Your task to perform on an android device: turn off improve location accuracy Image 0: 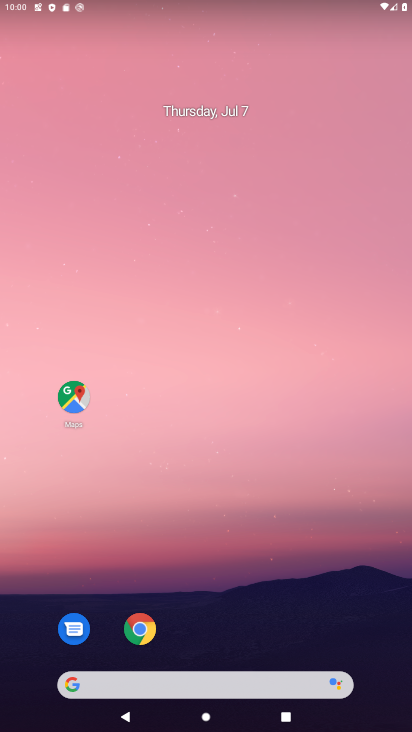
Step 0: drag from (219, 649) to (214, 6)
Your task to perform on an android device: turn off improve location accuracy Image 1: 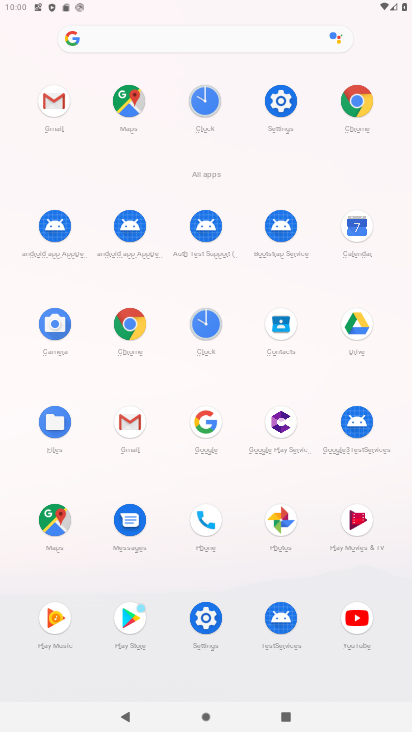
Step 1: click (269, 95)
Your task to perform on an android device: turn off improve location accuracy Image 2: 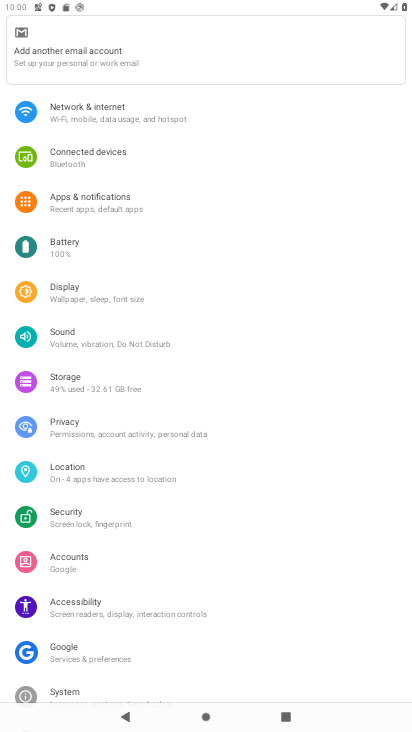
Step 2: click (63, 467)
Your task to perform on an android device: turn off improve location accuracy Image 3: 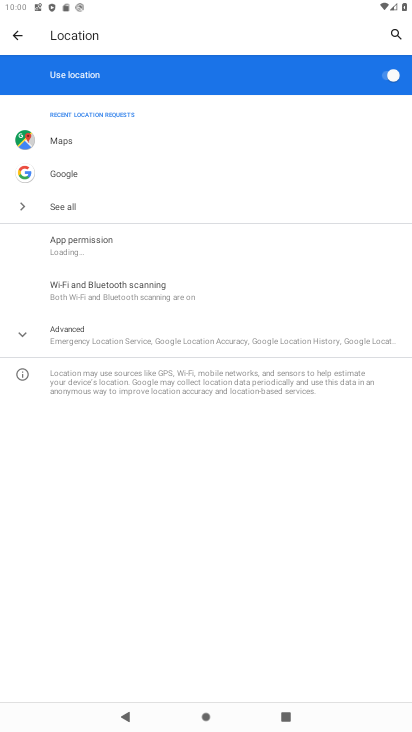
Step 3: click (108, 328)
Your task to perform on an android device: turn off improve location accuracy Image 4: 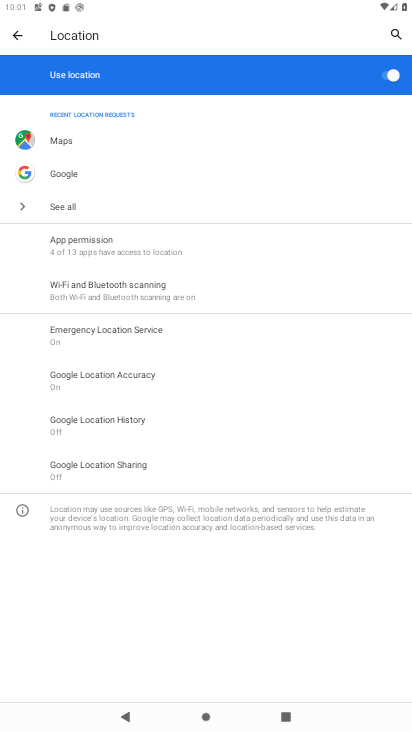
Step 4: click (109, 375)
Your task to perform on an android device: turn off improve location accuracy Image 5: 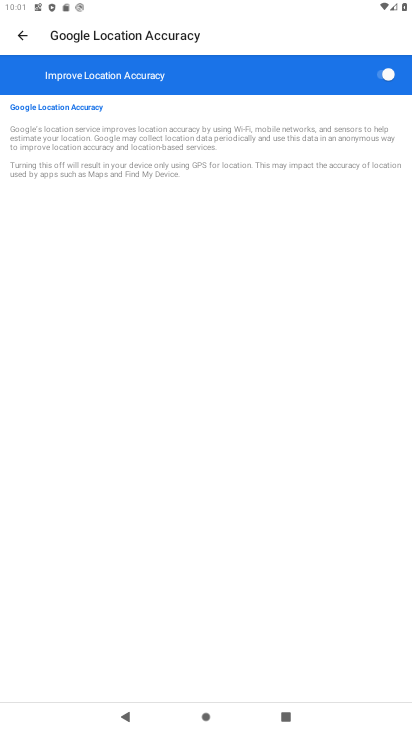
Step 5: click (382, 78)
Your task to perform on an android device: turn off improve location accuracy Image 6: 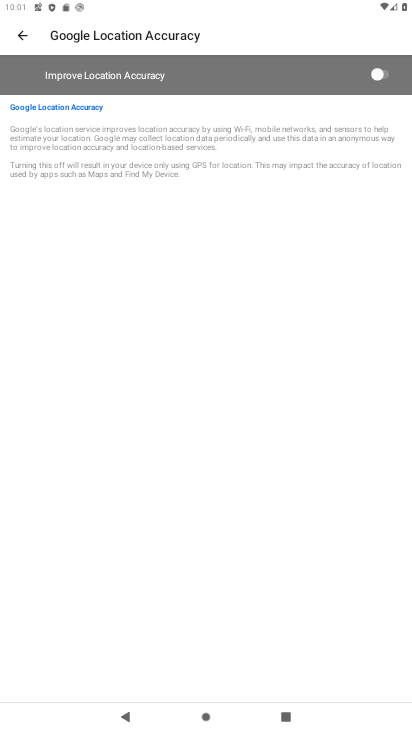
Step 6: task complete